Your task to perform on an android device: turn off translation in the chrome app Image 0: 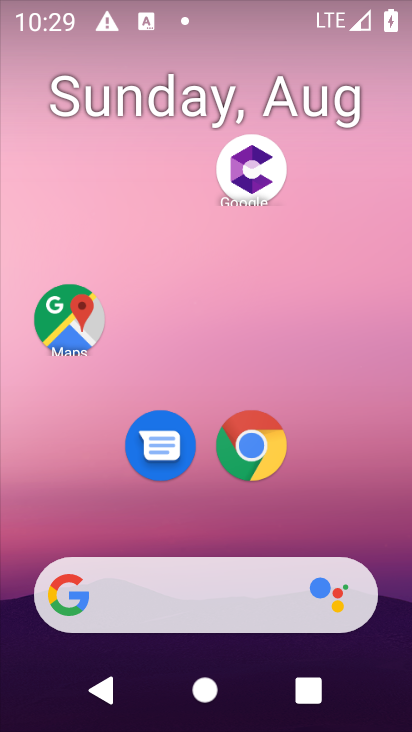
Step 0: press home button
Your task to perform on an android device: turn off translation in the chrome app Image 1: 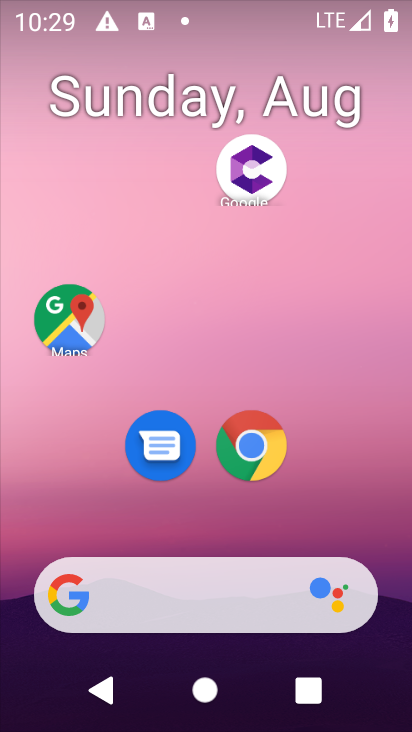
Step 1: click (250, 439)
Your task to perform on an android device: turn off translation in the chrome app Image 2: 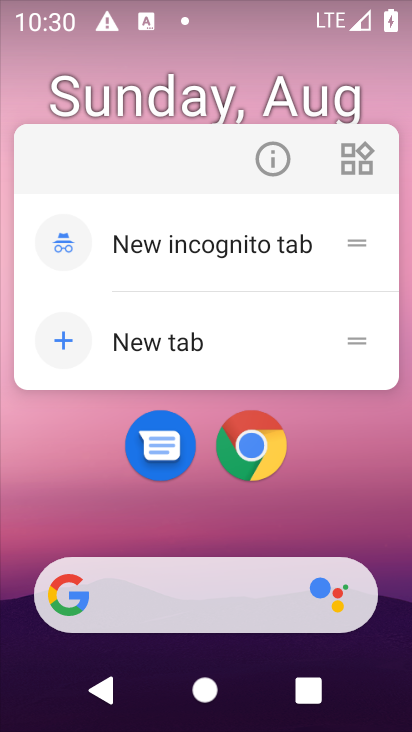
Step 2: click (317, 509)
Your task to perform on an android device: turn off translation in the chrome app Image 3: 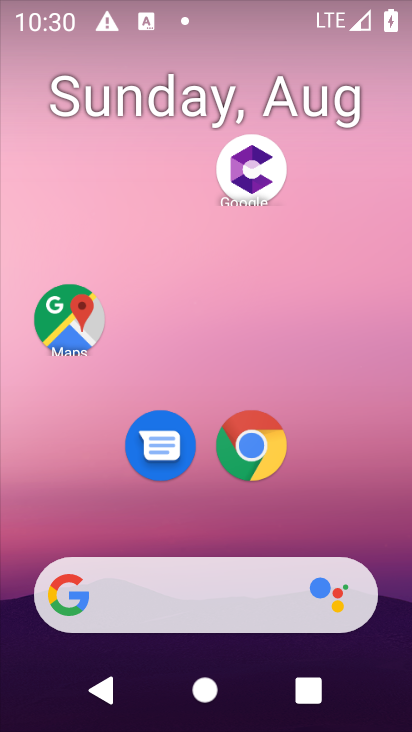
Step 3: click (251, 441)
Your task to perform on an android device: turn off translation in the chrome app Image 4: 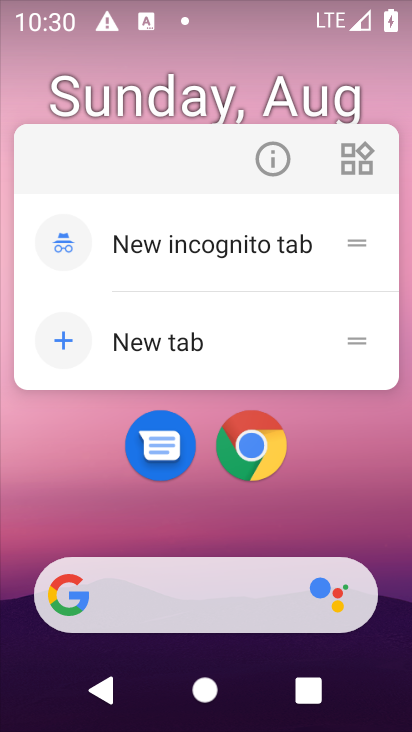
Step 4: click (340, 489)
Your task to perform on an android device: turn off translation in the chrome app Image 5: 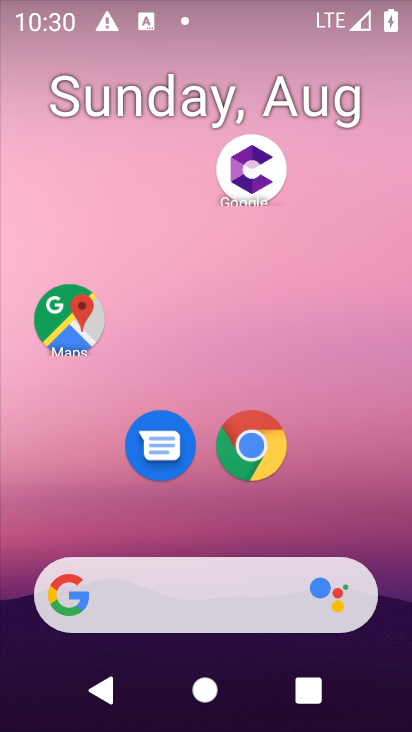
Step 5: click (247, 440)
Your task to perform on an android device: turn off translation in the chrome app Image 6: 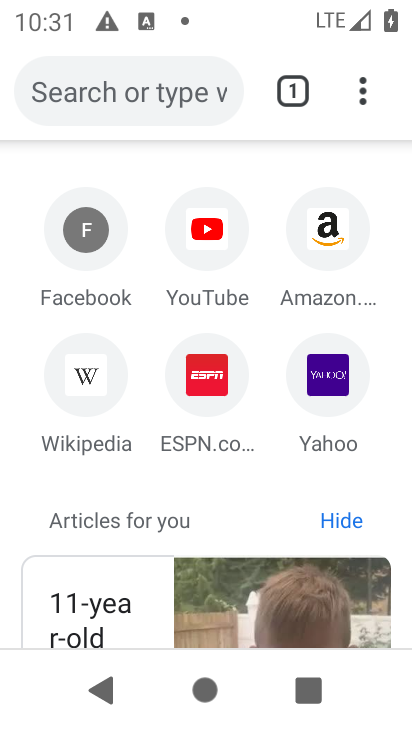
Step 6: click (363, 90)
Your task to perform on an android device: turn off translation in the chrome app Image 7: 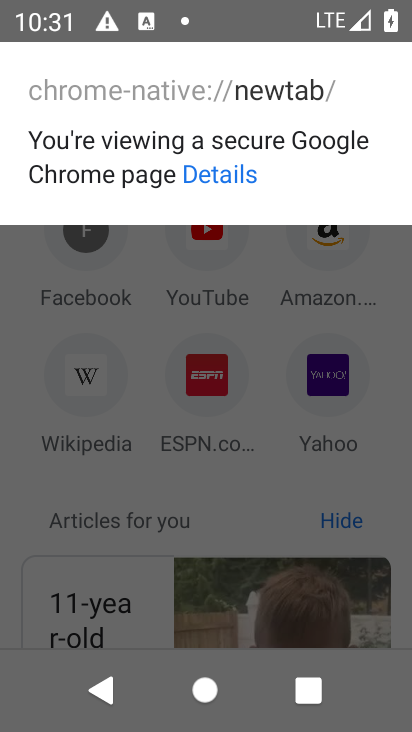
Step 7: click (331, 305)
Your task to perform on an android device: turn off translation in the chrome app Image 8: 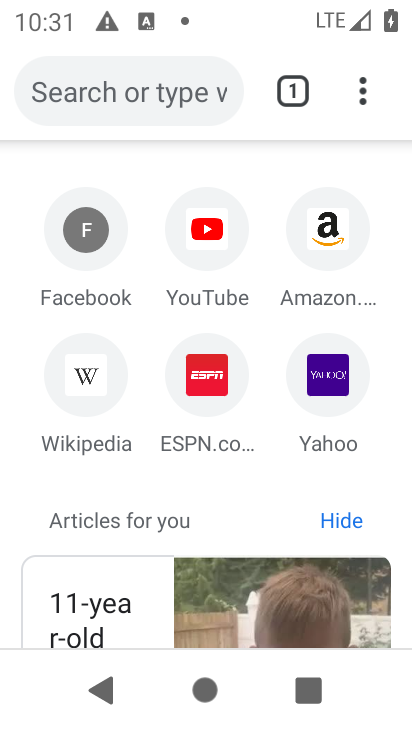
Step 8: click (360, 90)
Your task to perform on an android device: turn off translation in the chrome app Image 9: 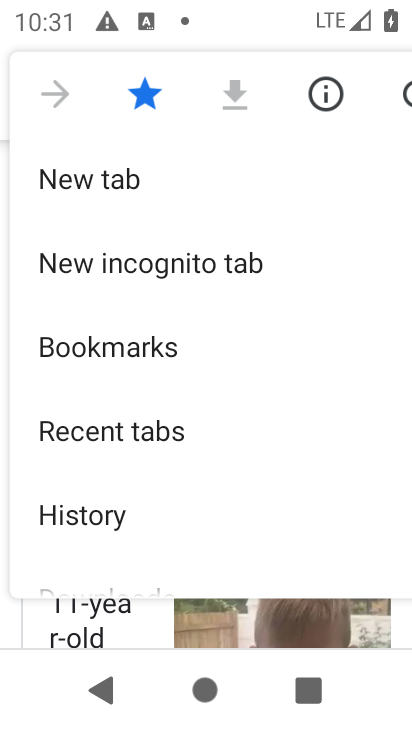
Step 9: drag from (169, 542) to (187, 155)
Your task to perform on an android device: turn off translation in the chrome app Image 10: 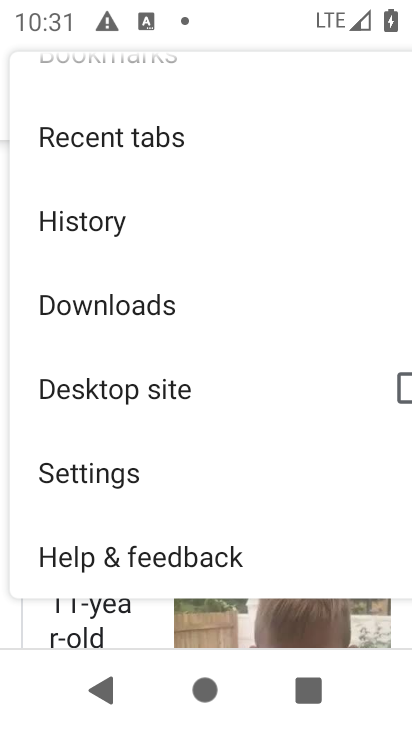
Step 10: click (142, 469)
Your task to perform on an android device: turn off translation in the chrome app Image 11: 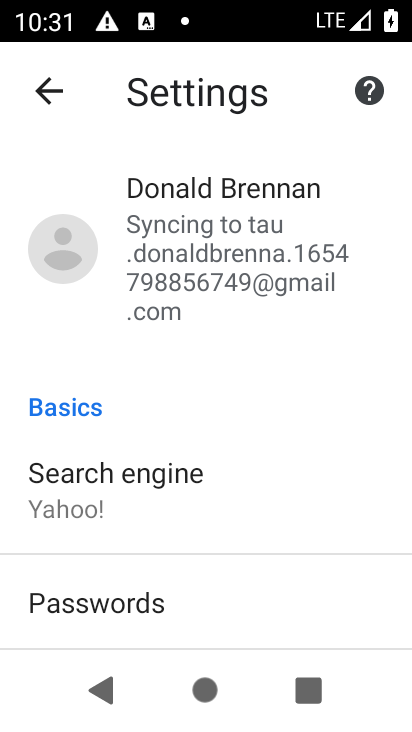
Step 11: drag from (239, 583) to (262, 133)
Your task to perform on an android device: turn off translation in the chrome app Image 12: 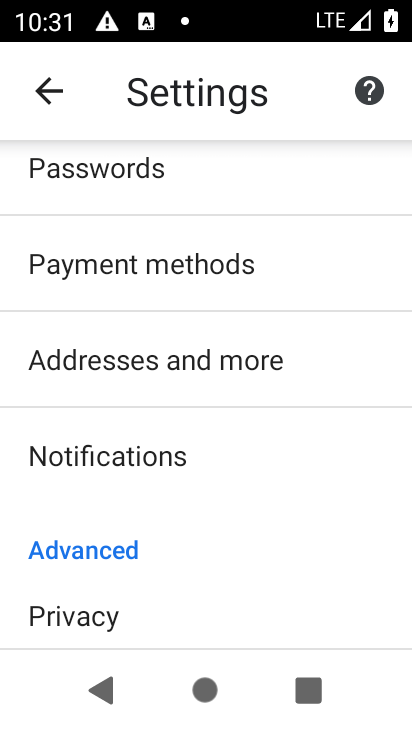
Step 12: drag from (195, 593) to (211, 204)
Your task to perform on an android device: turn off translation in the chrome app Image 13: 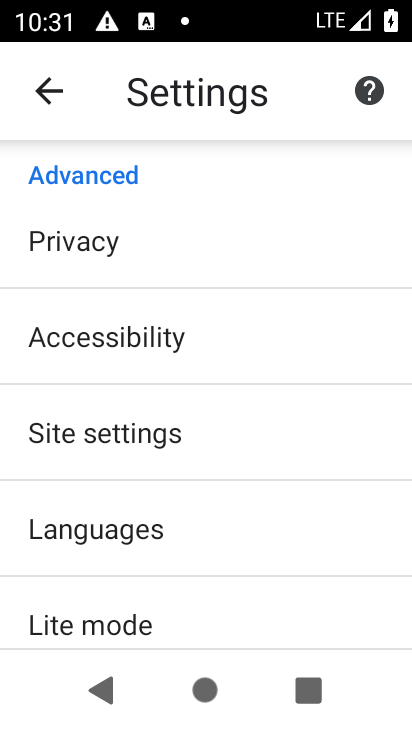
Step 13: click (181, 531)
Your task to perform on an android device: turn off translation in the chrome app Image 14: 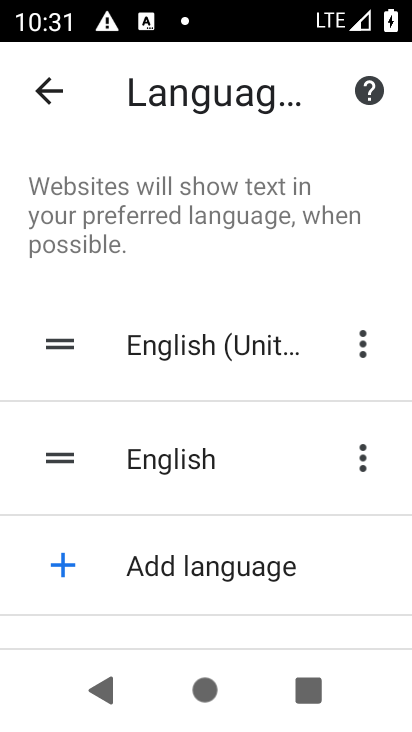
Step 14: task complete